Your task to perform on an android device: Search for pizza restaurants on Maps Image 0: 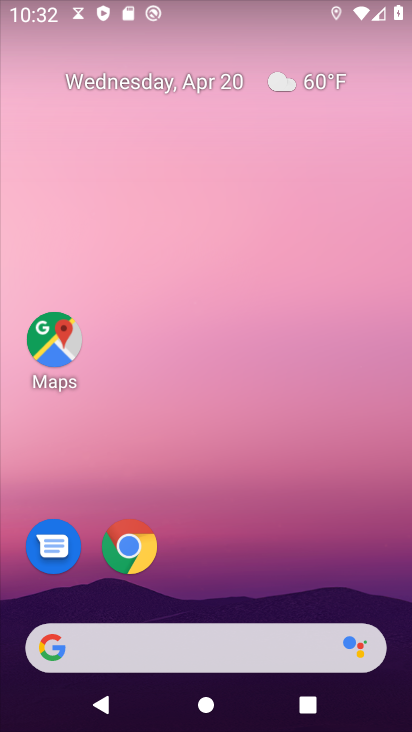
Step 0: drag from (224, 301) to (217, 139)
Your task to perform on an android device: Search for pizza restaurants on Maps Image 1: 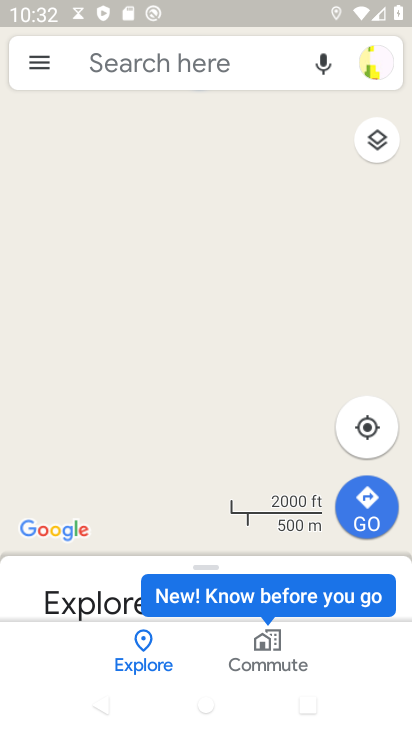
Step 1: click (182, 57)
Your task to perform on an android device: Search for pizza restaurants on Maps Image 2: 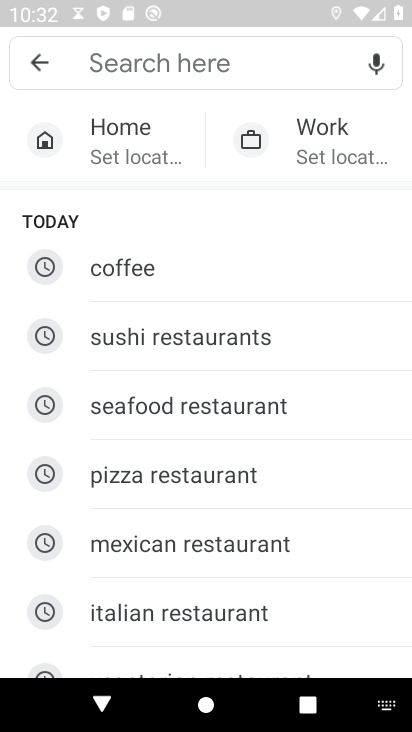
Step 2: click (181, 478)
Your task to perform on an android device: Search for pizza restaurants on Maps Image 3: 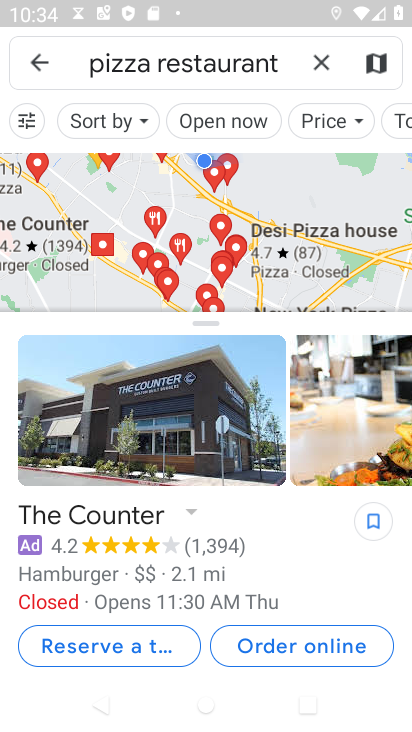
Step 3: task complete